Your task to perform on an android device: Set the phone to "Do not disturb". Image 0: 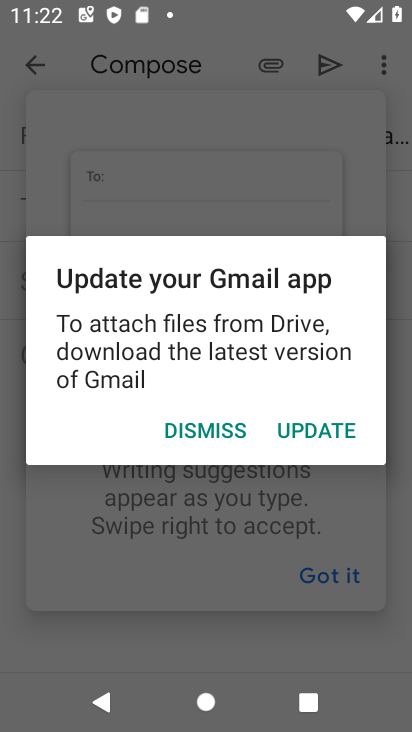
Step 0: press home button
Your task to perform on an android device: Set the phone to "Do not disturb". Image 1: 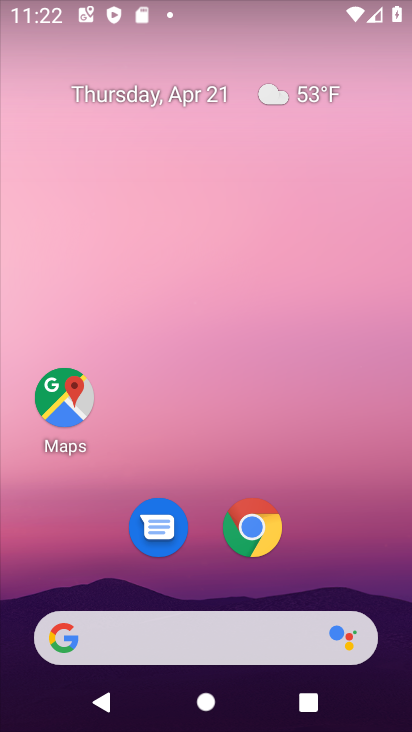
Step 1: drag from (347, 554) to (353, 93)
Your task to perform on an android device: Set the phone to "Do not disturb". Image 2: 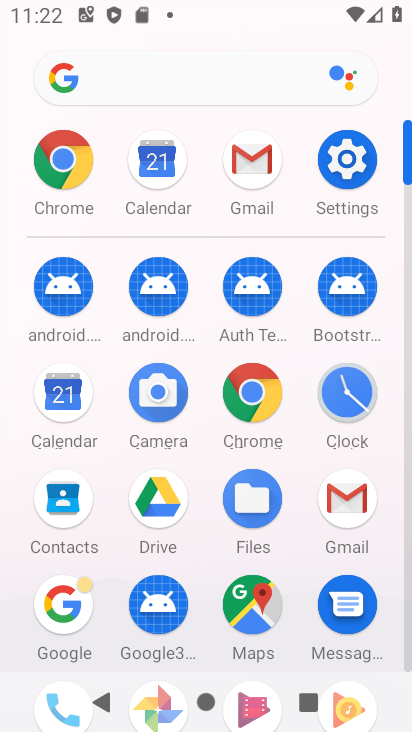
Step 2: click (355, 165)
Your task to perform on an android device: Set the phone to "Do not disturb". Image 3: 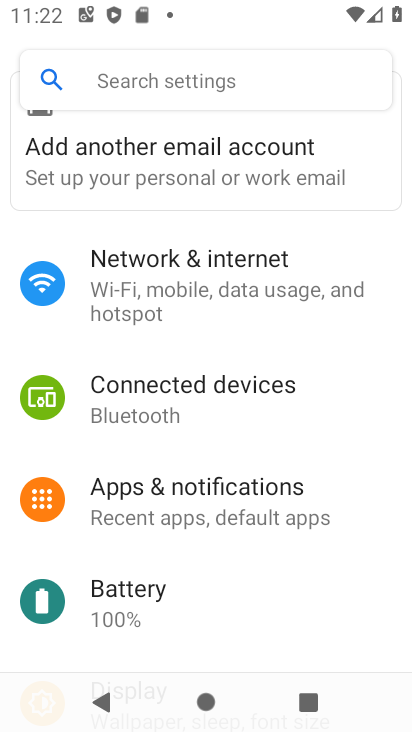
Step 3: drag from (369, 553) to (370, 357)
Your task to perform on an android device: Set the phone to "Do not disturb". Image 4: 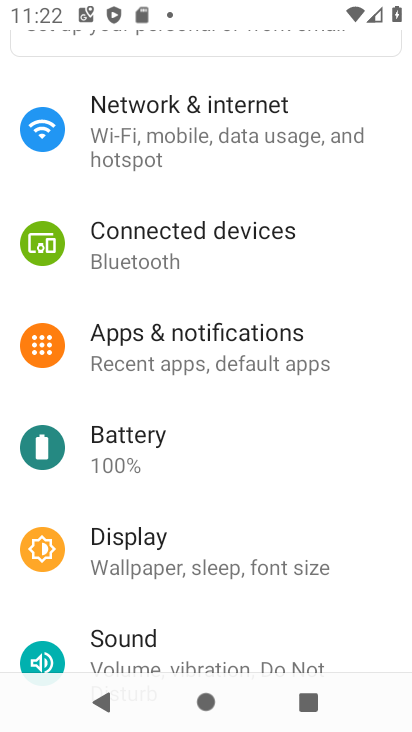
Step 4: drag from (352, 590) to (360, 386)
Your task to perform on an android device: Set the phone to "Do not disturb". Image 5: 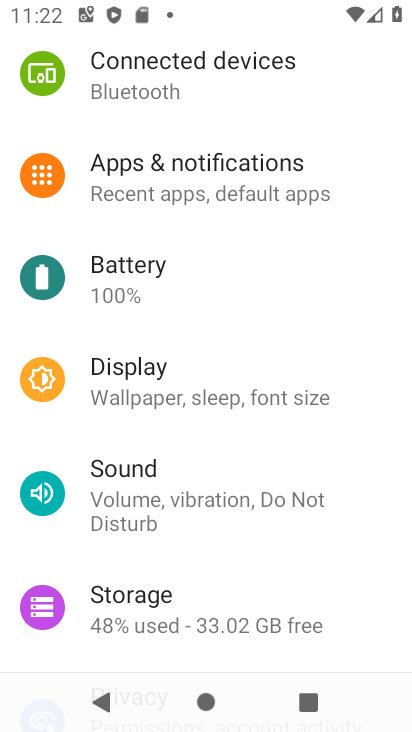
Step 5: drag from (364, 597) to (362, 431)
Your task to perform on an android device: Set the phone to "Do not disturb". Image 6: 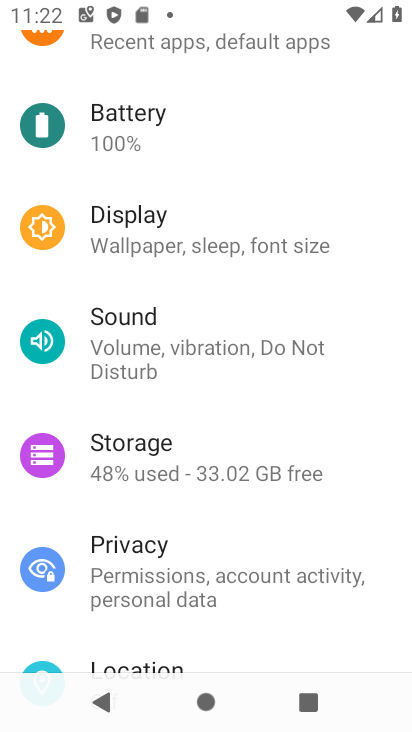
Step 6: drag from (378, 627) to (374, 453)
Your task to perform on an android device: Set the phone to "Do not disturb". Image 7: 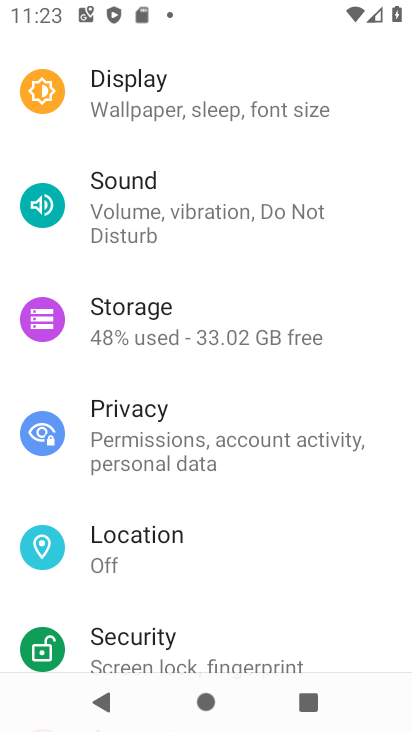
Step 7: drag from (361, 606) to (371, 434)
Your task to perform on an android device: Set the phone to "Do not disturb". Image 8: 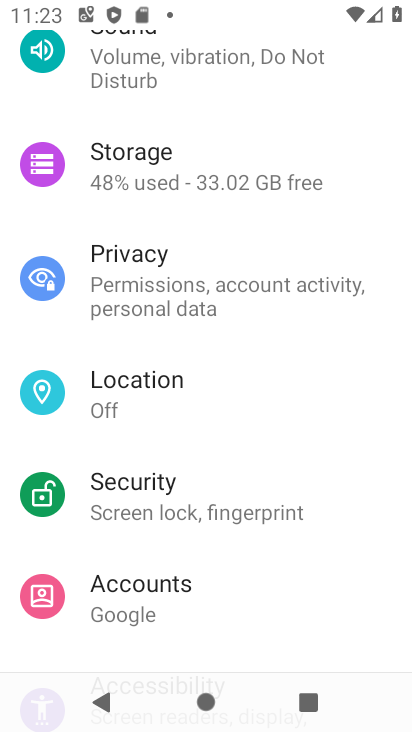
Step 8: drag from (357, 608) to (356, 452)
Your task to perform on an android device: Set the phone to "Do not disturb". Image 9: 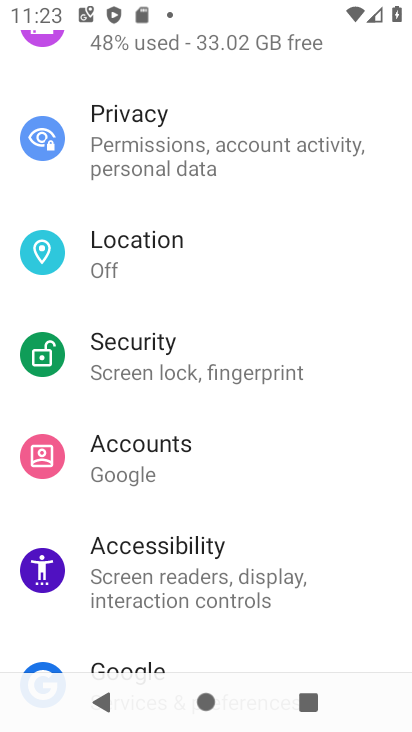
Step 9: drag from (363, 598) to (367, 414)
Your task to perform on an android device: Set the phone to "Do not disturb". Image 10: 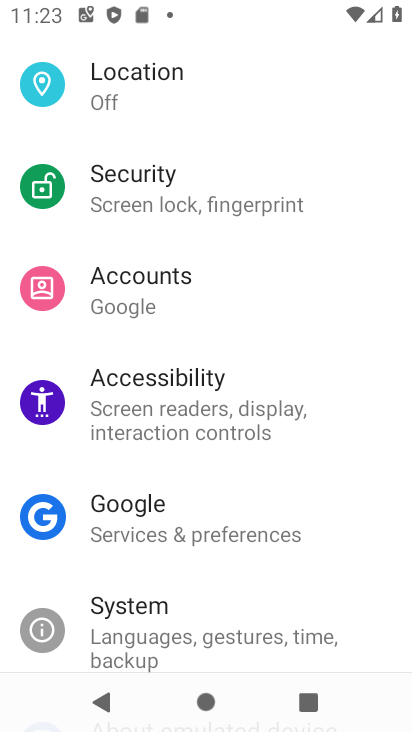
Step 10: drag from (347, 274) to (343, 430)
Your task to perform on an android device: Set the phone to "Do not disturb". Image 11: 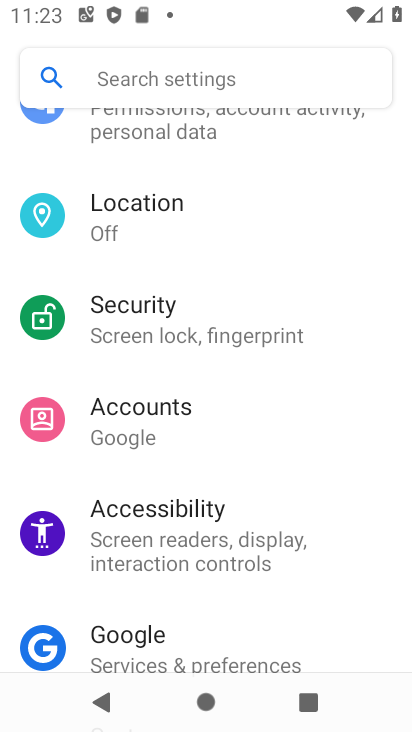
Step 11: drag from (341, 274) to (346, 434)
Your task to perform on an android device: Set the phone to "Do not disturb". Image 12: 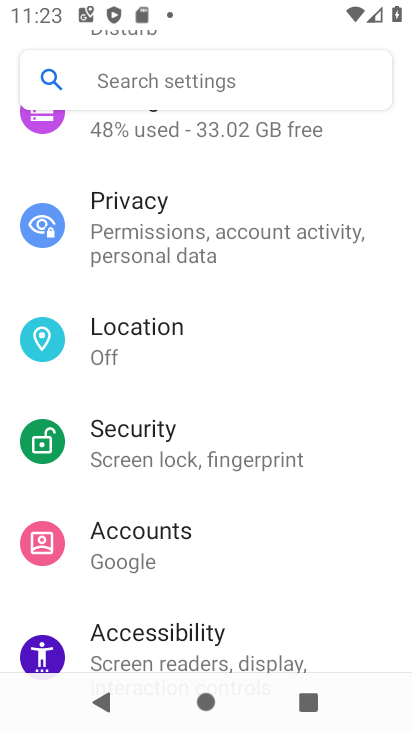
Step 12: drag from (357, 315) to (348, 484)
Your task to perform on an android device: Set the phone to "Do not disturb". Image 13: 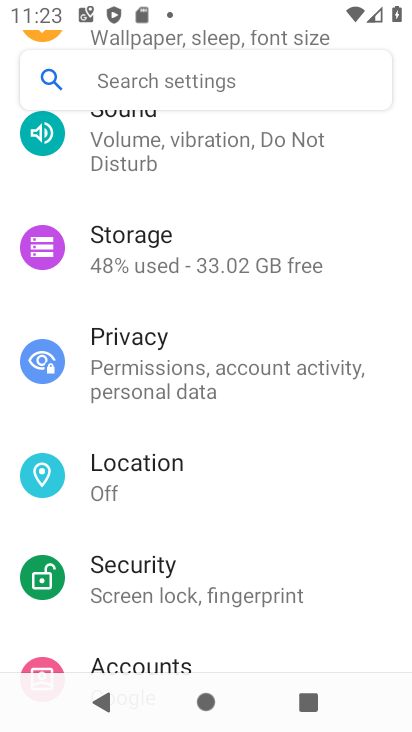
Step 13: drag from (351, 280) to (358, 461)
Your task to perform on an android device: Set the phone to "Do not disturb". Image 14: 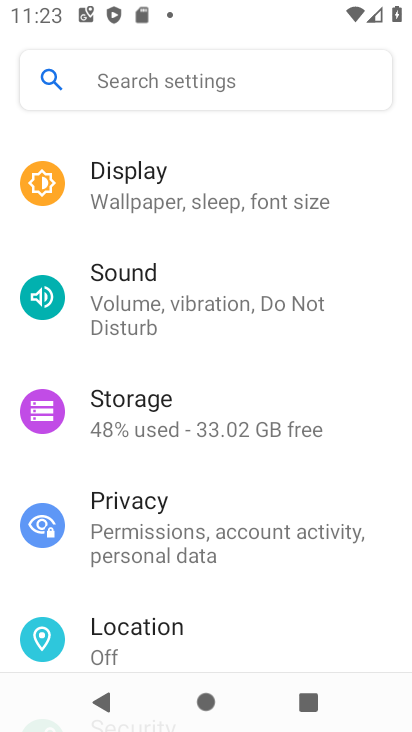
Step 14: drag from (368, 264) to (359, 387)
Your task to perform on an android device: Set the phone to "Do not disturb". Image 15: 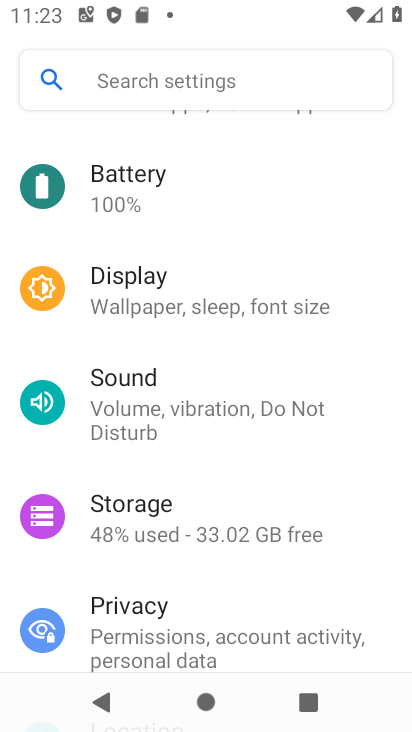
Step 15: click (324, 399)
Your task to perform on an android device: Set the phone to "Do not disturb". Image 16: 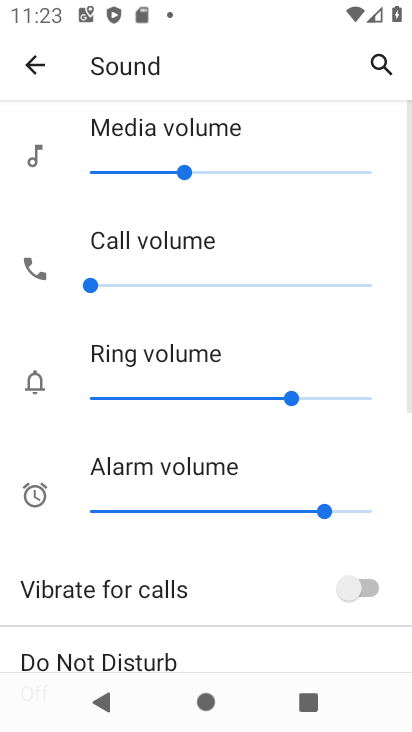
Step 16: drag from (270, 565) to (272, 388)
Your task to perform on an android device: Set the phone to "Do not disturb". Image 17: 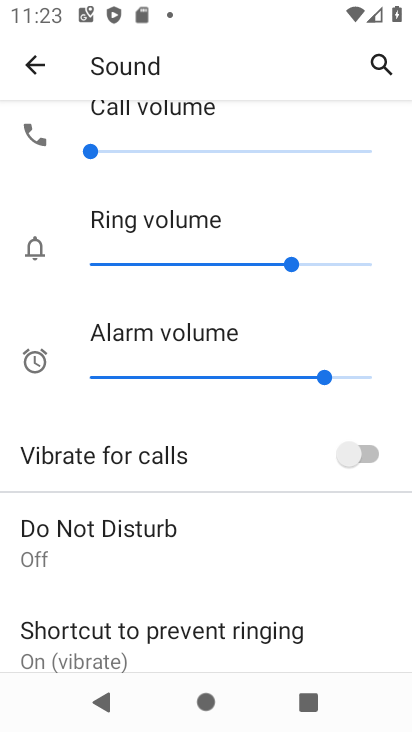
Step 17: click (109, 545)
Your task to perform on an android device: Set the phone to "Do not disturb". Image 18: 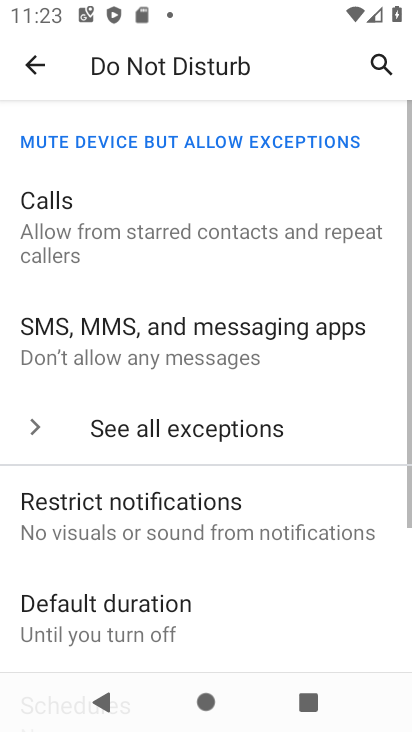
Step 18: drag from (260, 576) to (259, 389)
Your task to perform on an android device: Set the phone to "Do not disturb". Image 19: 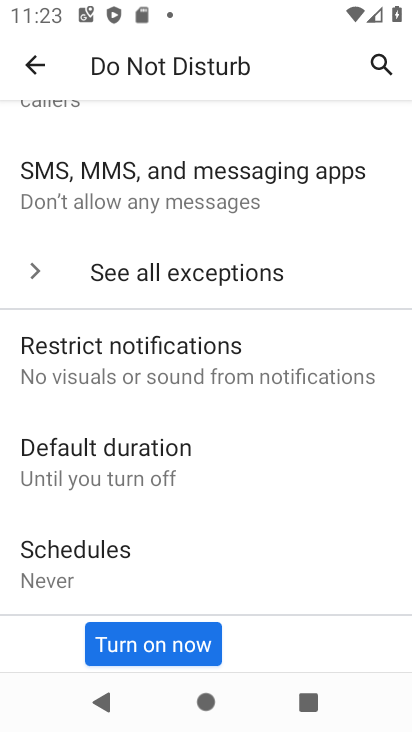
Step 19: drag from (236, 490) to (246, 447)
Your task to perform on an android device: Set the phone to "Do not disturb". Image 20: 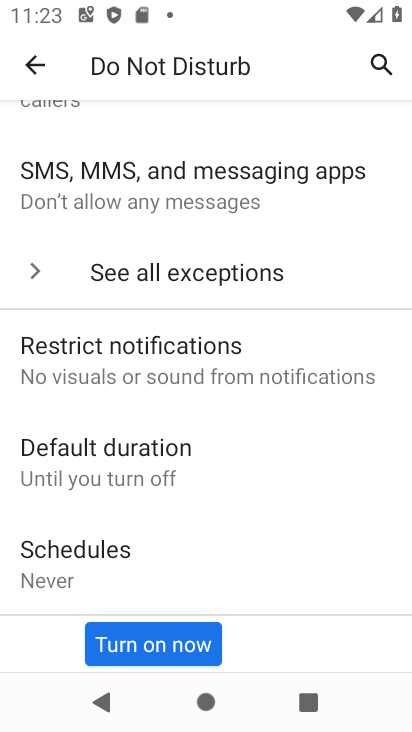
Step 20: click (170, 641)
Your task to perform on an android device: Set the phone to "Do not disturb". Image 21: 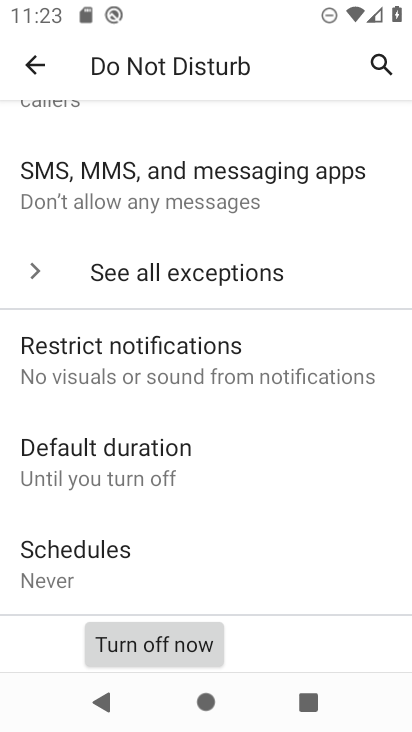
Step 21: task complete